Your task to perform on an android device: add a label to a message in the gmail app Image 0: 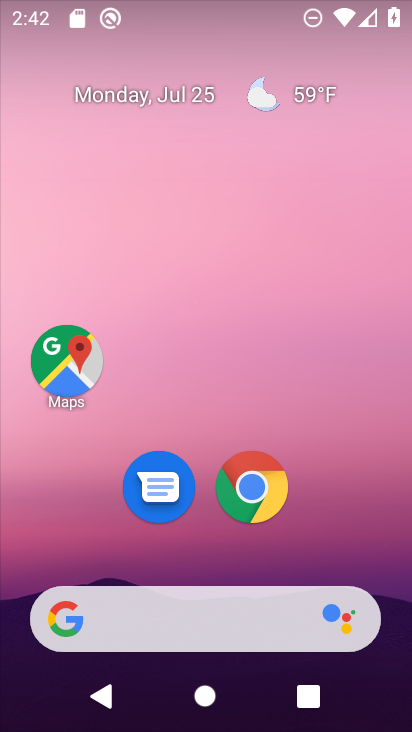
Step 0: drag from (173, 563) to (365, 1)
Your task to perform on an android device: add a label to a message in the gmail app Image 1: 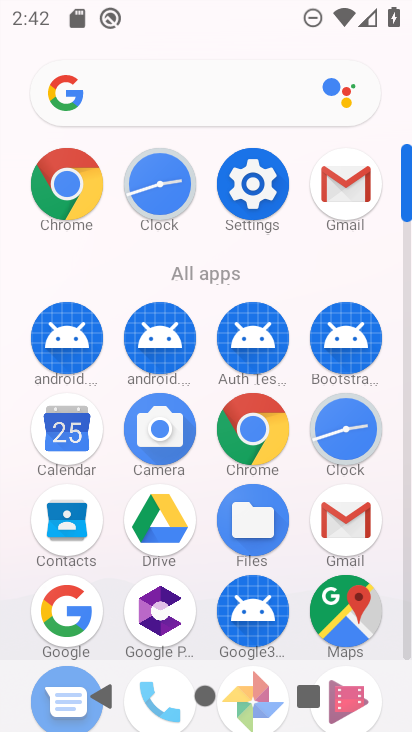
Step 1: click (353, 185)
Your task to perform on an android device: add a label to a message in the gmail app Image 2: 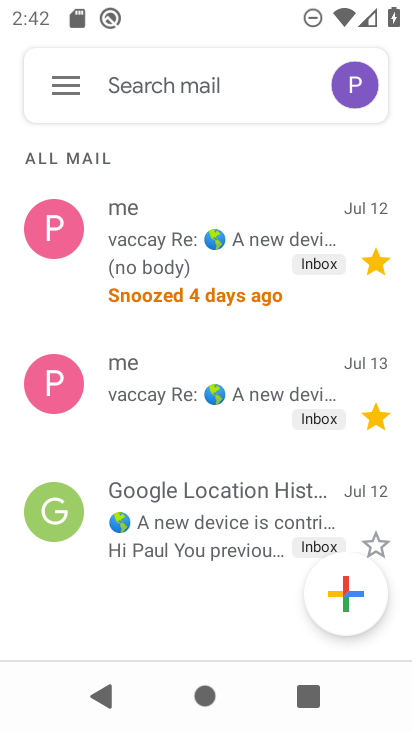
Step 2: click (216, 394)
Your task to perform on an android device: add a label to a message in the gmail app Image 3: 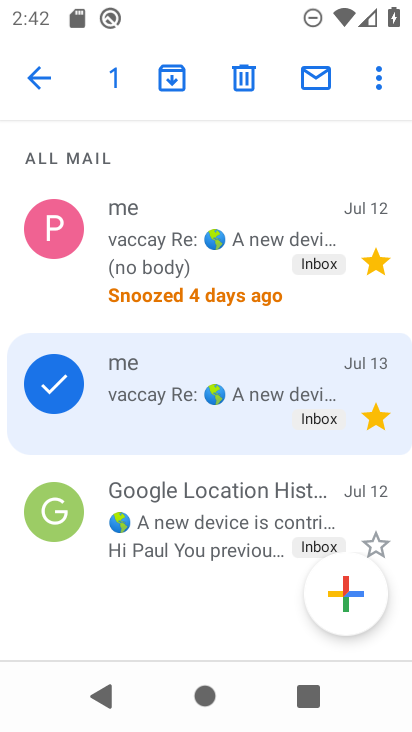
Step 3: click (381, 81)
Your task to perform on an android device: add a label to a message in the gmail app Image 4: 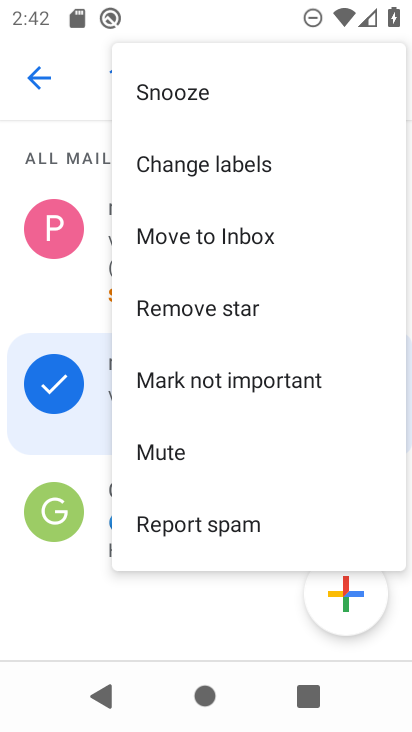
Step 4: click (207, 159)
Your task to perform on an android device: add a label to a message in the gmail app Image 5: 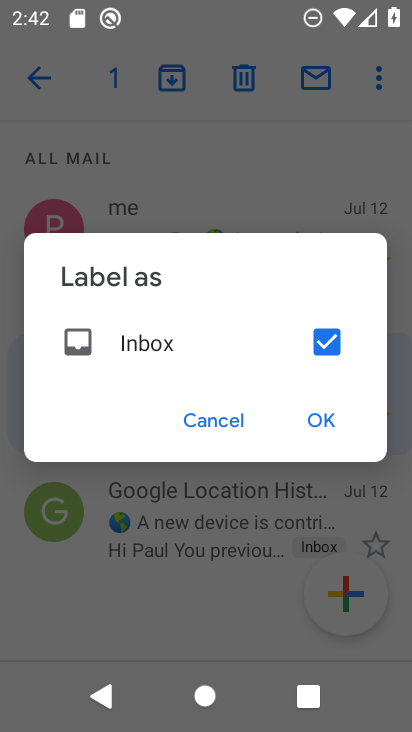
Step 5: click (329, 426)
Your task to perform on an android device: add a label to a message in the gmail app Image 6: 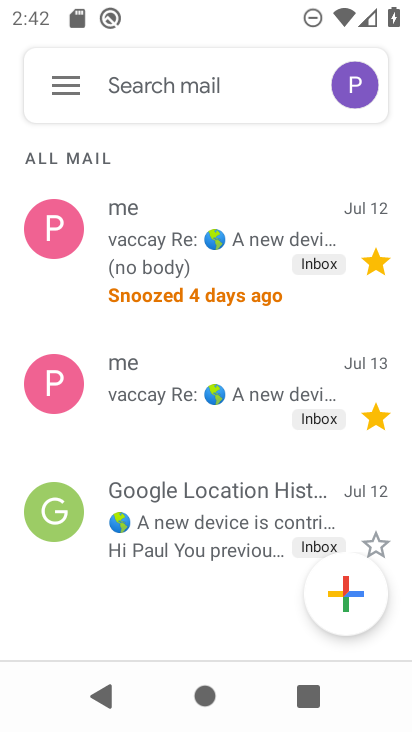
Step 6: task complete